Your task to perform on an android device: find which apps use the phone's location Image 0: 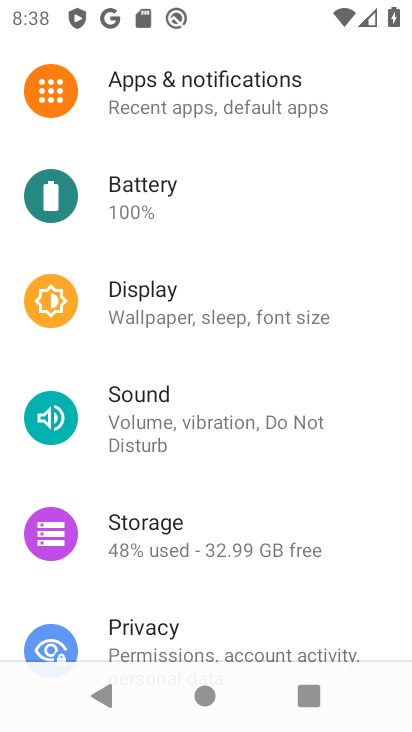
Step 0: press back button
Your task to perform on an android device: find which apps use the phone's location Image 1: 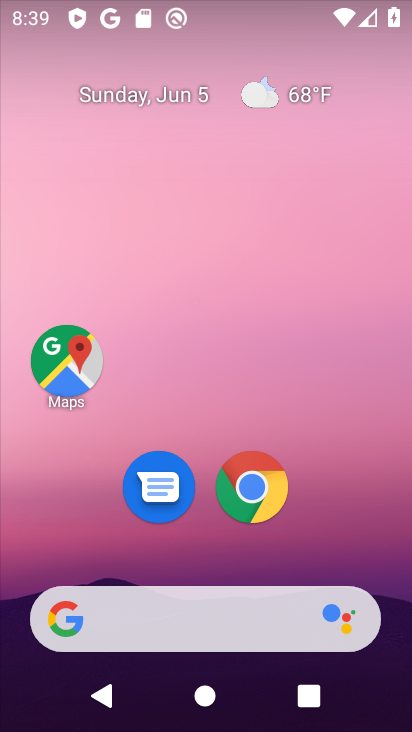
Step 1: drag from (199, 571) to (253, 43)
Your task to perform on an android device: find which apps use the phone's location Image 2: 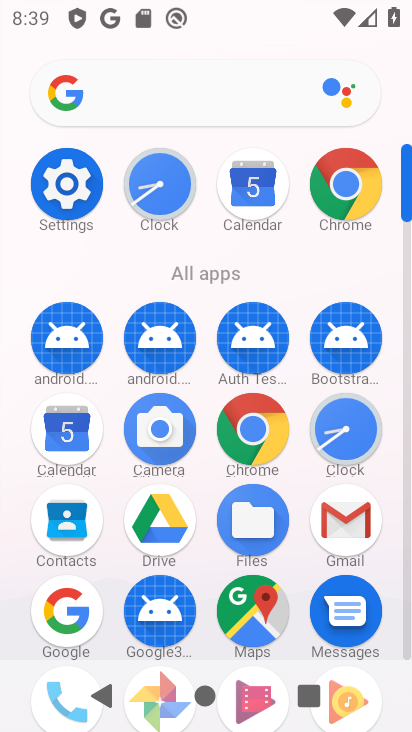
Step 2: click (59, 189)
Your task to perform on an android device: find which apps use the phone's location Image 3: 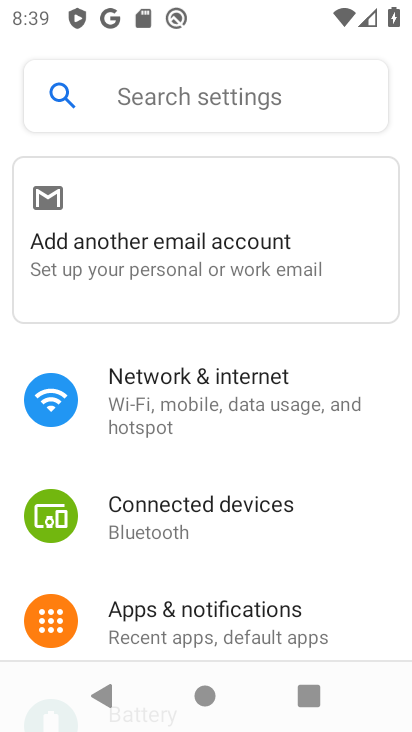
Step 3: drag from (210, 501) to (216, 106)
Your task to perform on an android device: find which apps use the phone's location Image 4: 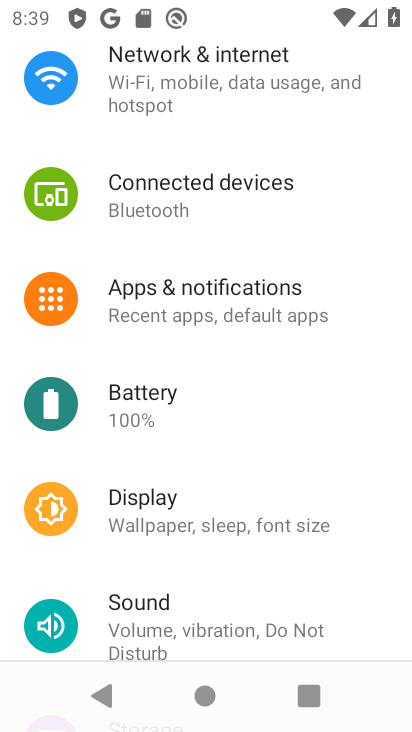
Step 4: drag from (177, 522) to (238, 100)
Your task to perform on an android device: find which apps use the phone's location Image 5: 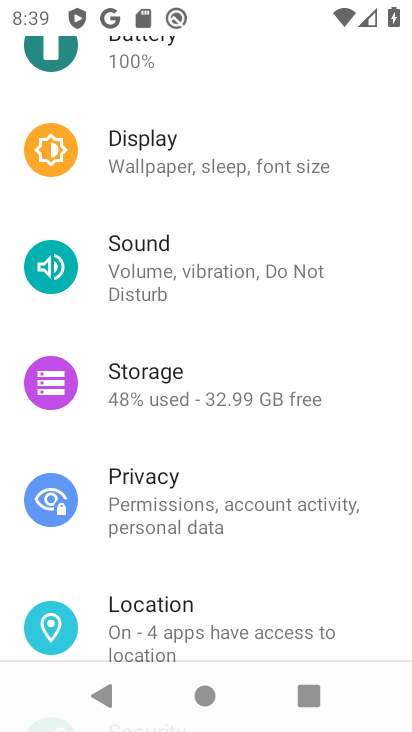
Step 5: drag from (202, 574) to (260, 252)
Your task to perform on an android device: find which apps use the phone's location Image 6: 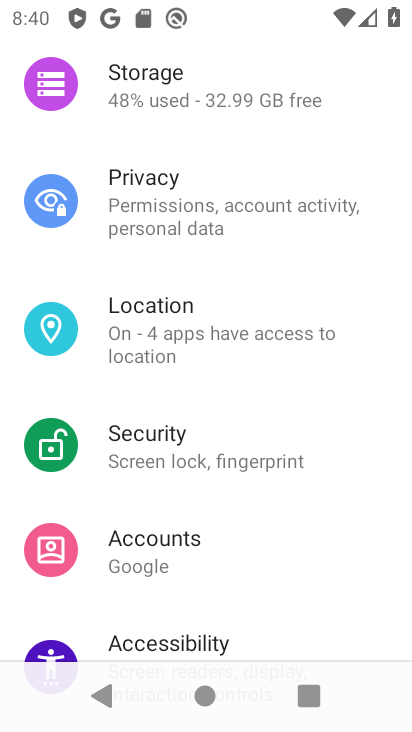
Step 6: click (196, 329)
Your task to perform on an android device: find which apps use the phone's location Image 7: 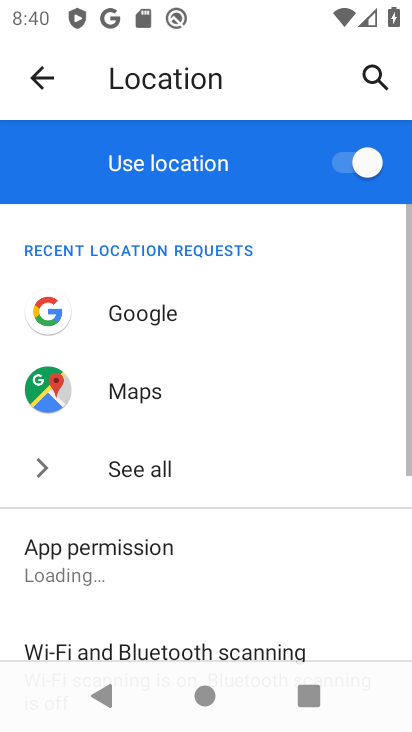
Step 7: click (79, 555)
Your task to perform on an android device: find which apps use the phone's location Image 8: 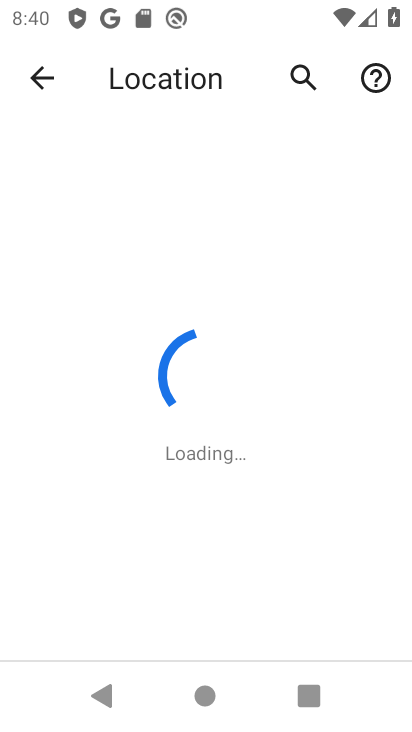
Step 8: task complete